Your task to perform on an android device: Go to display settings Image 0: 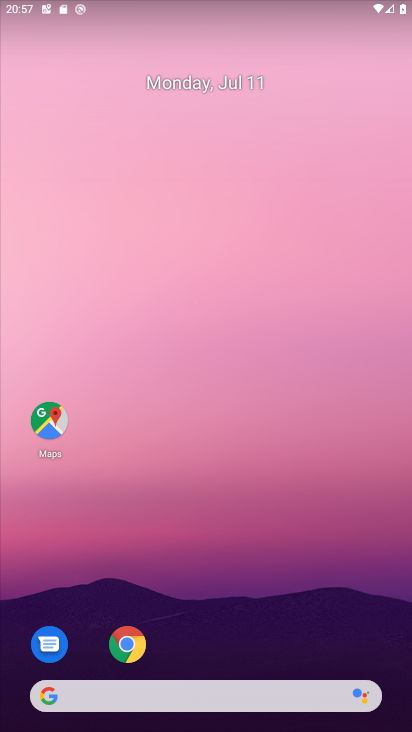
Step 0: drag from (253, 593) to (260, 225)
Your task to perform on an android device: Go to display settings Image 1: 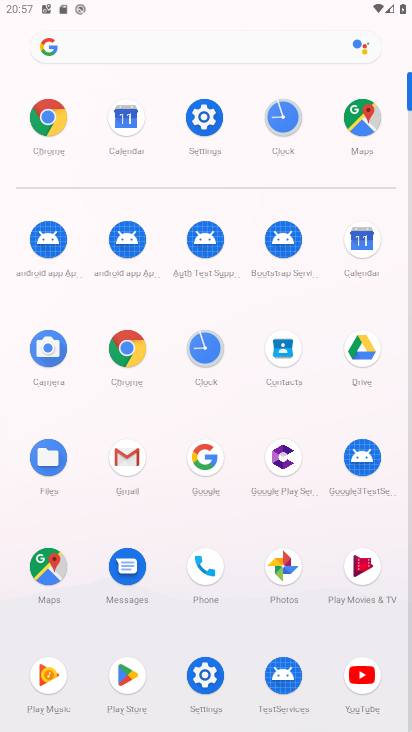
Step 1: click (211, 111)
Your task to perform on an android device: Go to display settings Image 2: 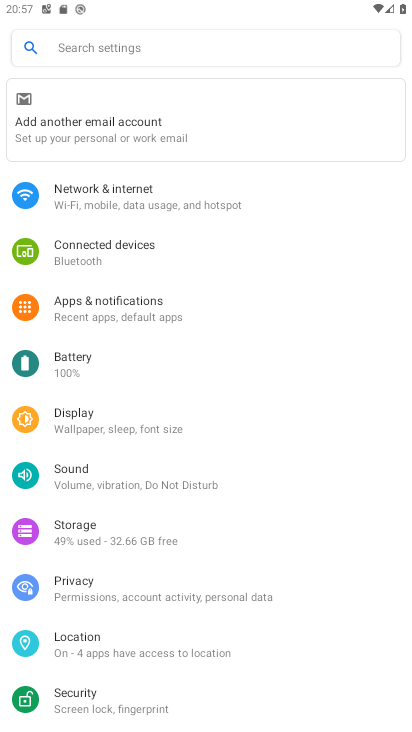
Step 2: click (131, 424)
Your task to perform on an android device: Go to display settings Image 3: 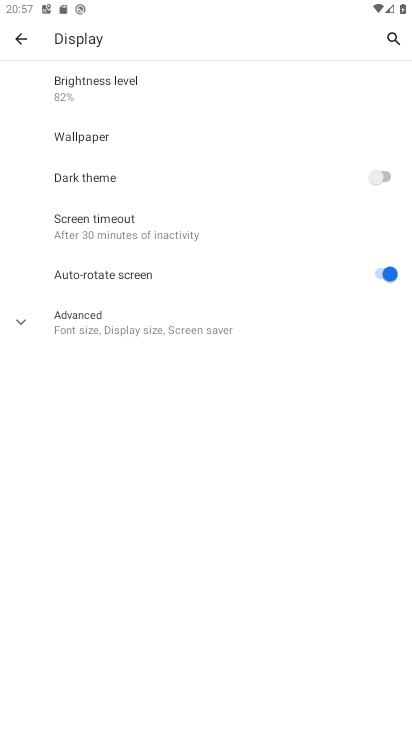
Step 3: task complete